Your task to perform on an android device: check android version Image 0: 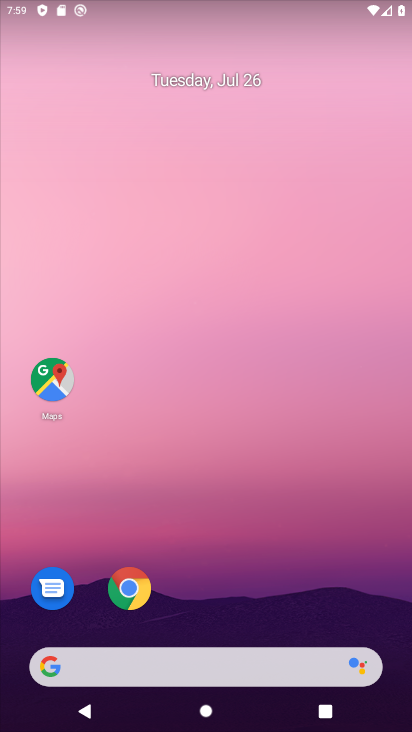
Step 0: drag from (183, 649) to (199, 246)
Your task to perform on an android device: check android version Image 1: 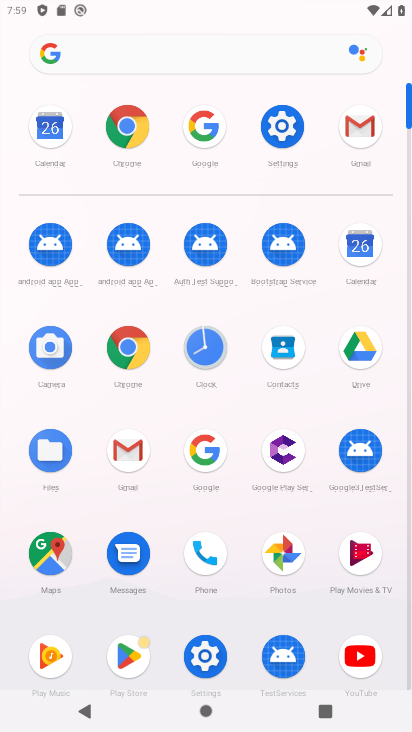
Step 1: click (287, 125)
Your task to perform on an android device: check android version Image 2: 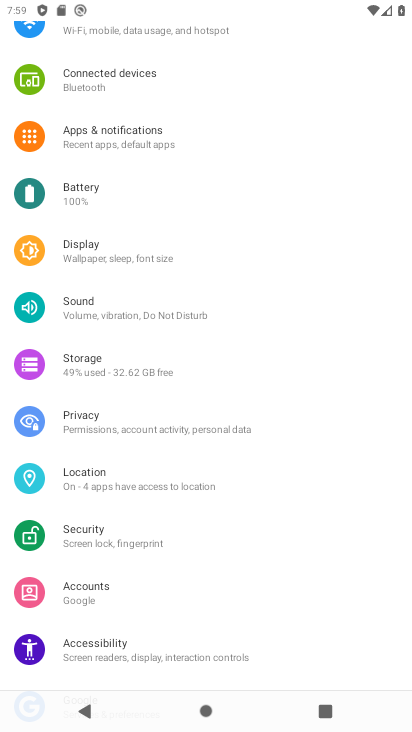
Step 2: drag from (115, 665) to (164, 197)
Your task to perform on an android device: check android version Image 3: 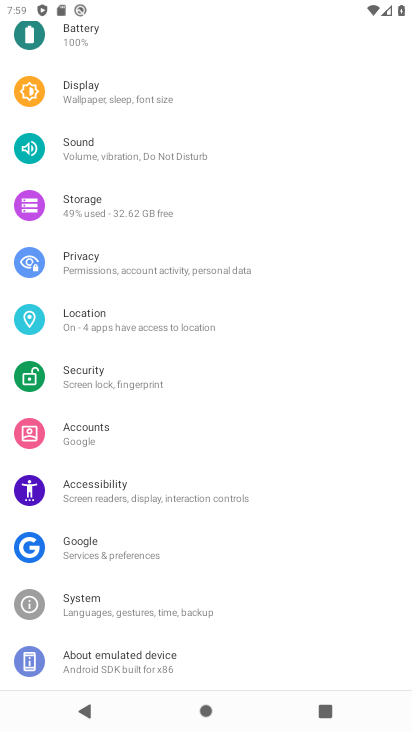
Step 3: click (109, 654)
Your task to perform on an android device: check android version Image 4: 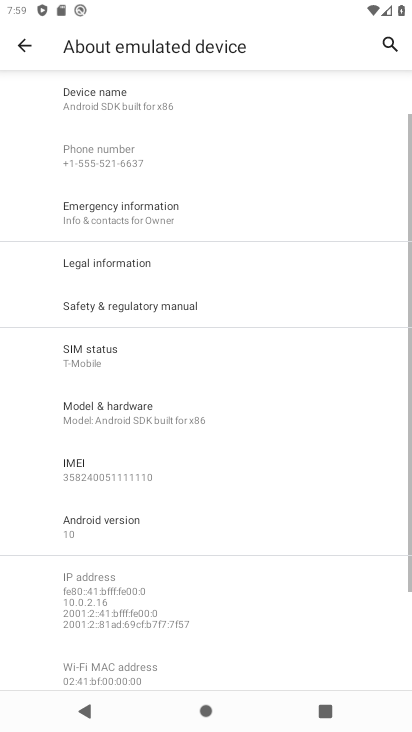
Step 4: click (87, 531)
Your task to perform on an android device: check android version Image 5: 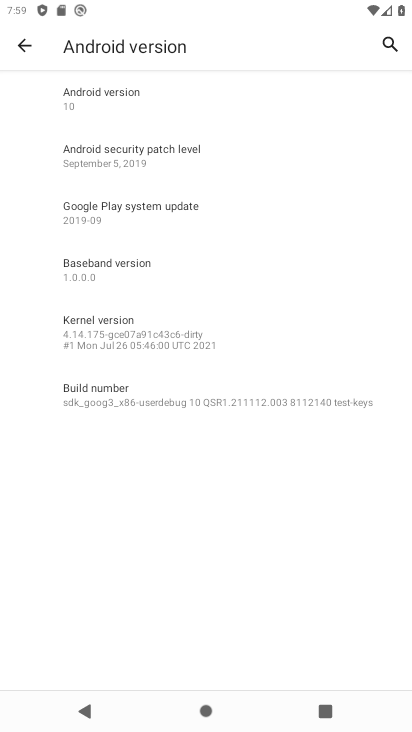
Step 5: task complete